Your task to perform on an android device: open app "Skype" Image 0: 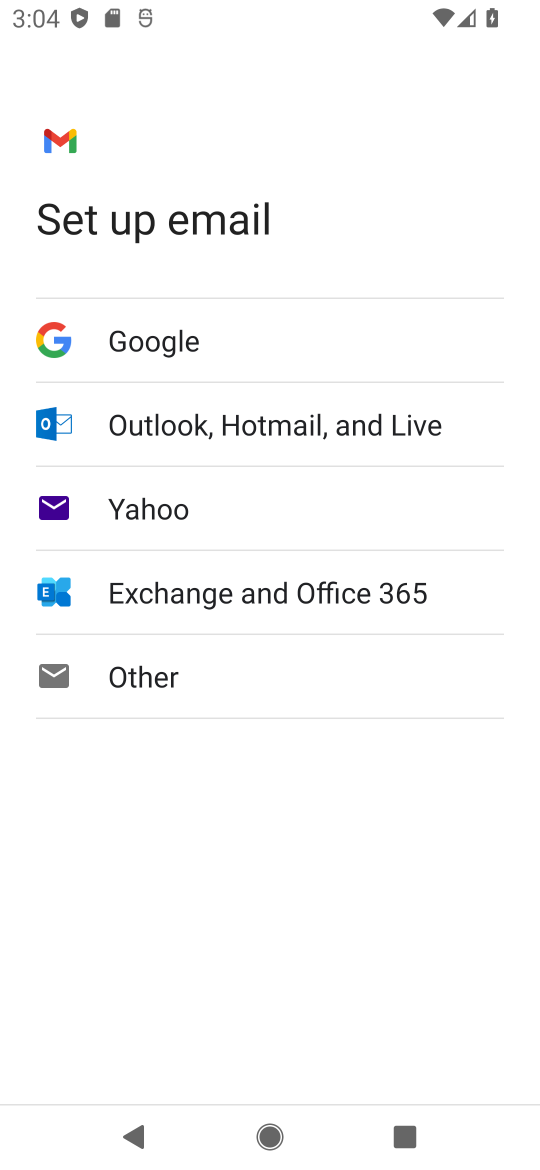
Step 0: press home button
Your task to perform on an android device: open app "Skype" Image 1: 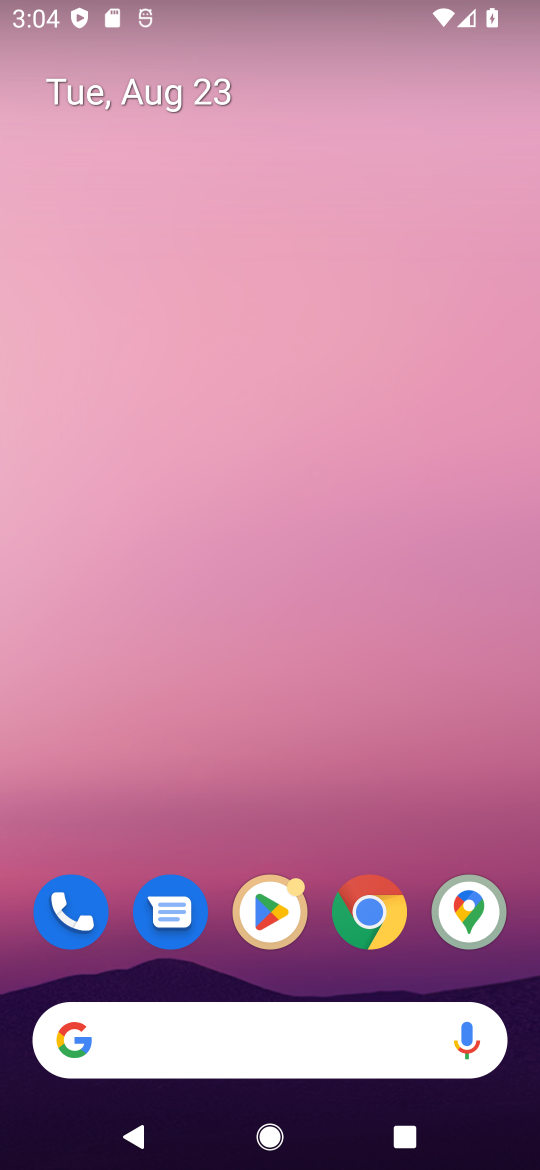
Step 1: drag from (194, 1045) to (244, 248)
Your task to perform on an android device: open app "Skype" Image 2: 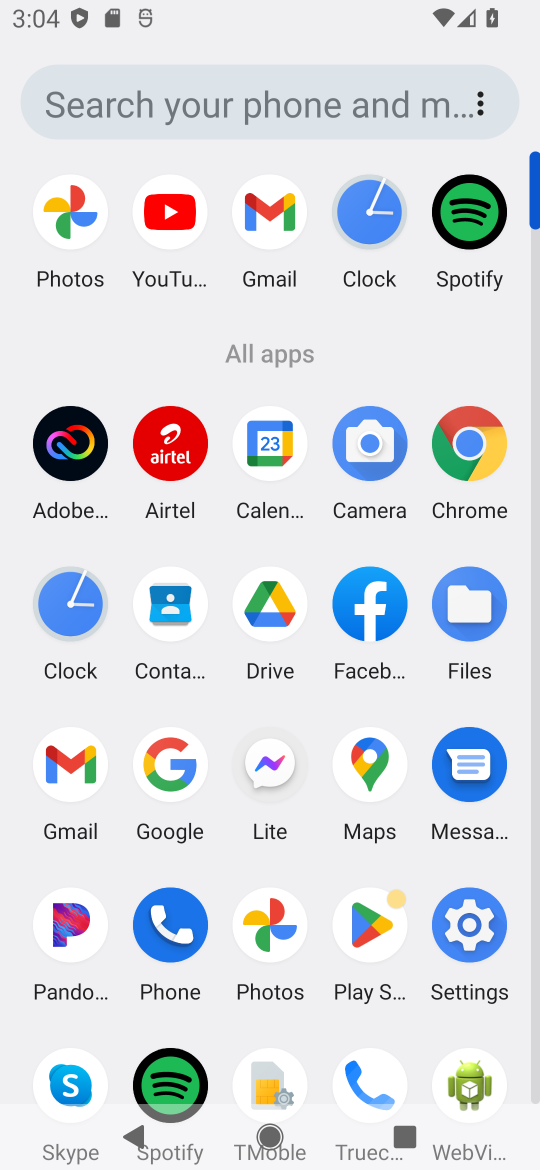
Step 2: drag from (217, 835) to (195, 460)
Your task to perform on an android device: open app "Skype" Image 3: 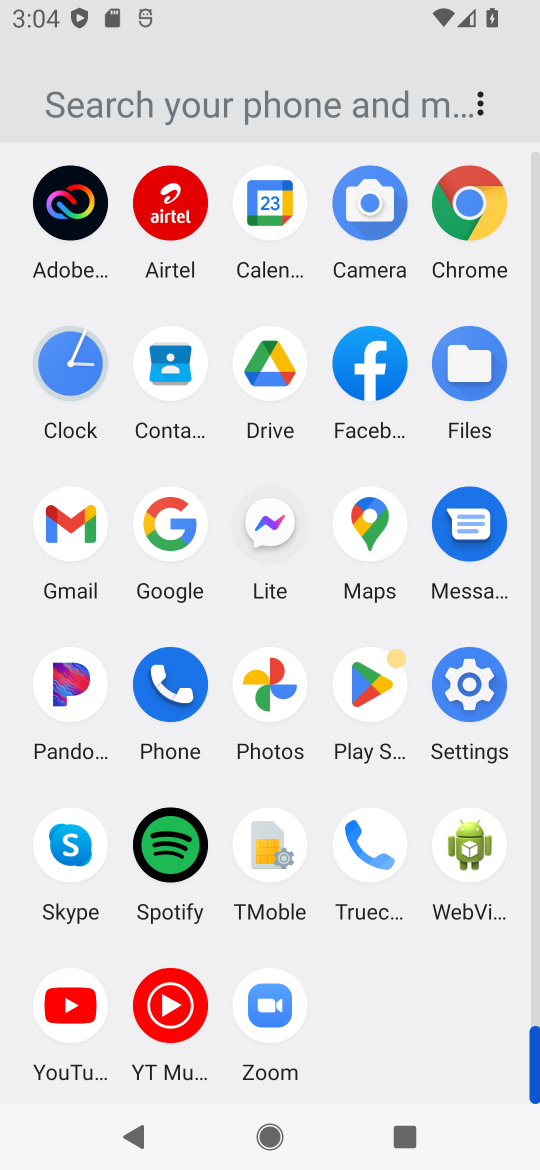
Step 3: click (76, 844)
Your task to perform on an android device: open app "Skype" Image 4: 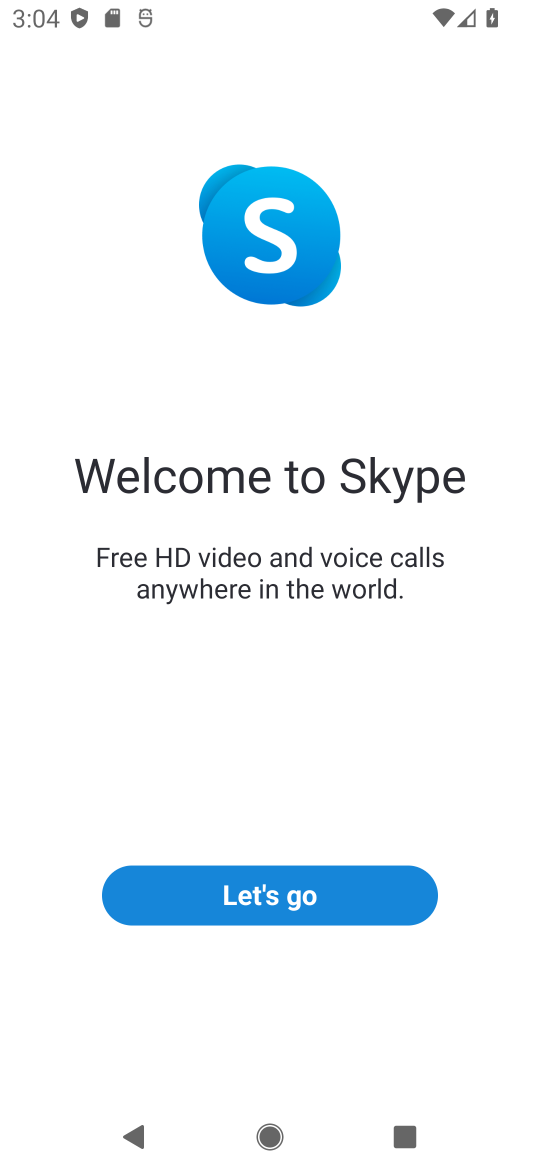
Step 4: task complete